Your task to perform on an android device: turn on the 12-hour format for clock Image 0: 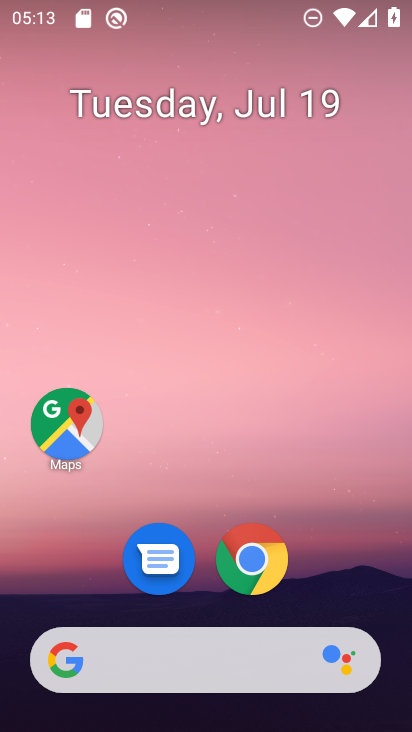
Step 0: drag from (203, 583) to (252, 19)
Your task to perform on an android device: turn on the 12-hour format for clock Image 1: 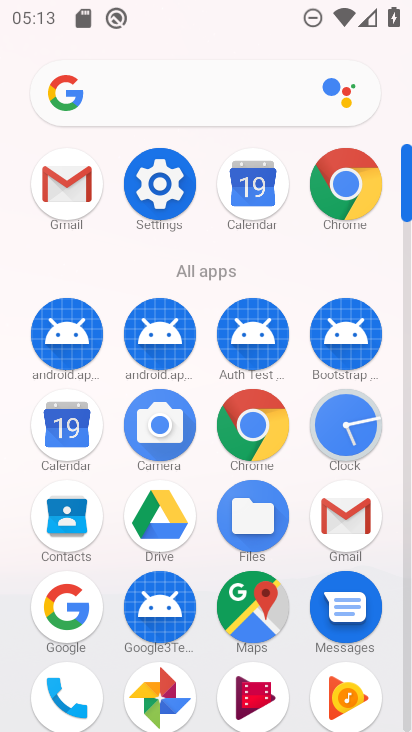
Step 1: click (355, 436)
Your task to perform on an android device: turn on the 12-hour format for clock Image 2: 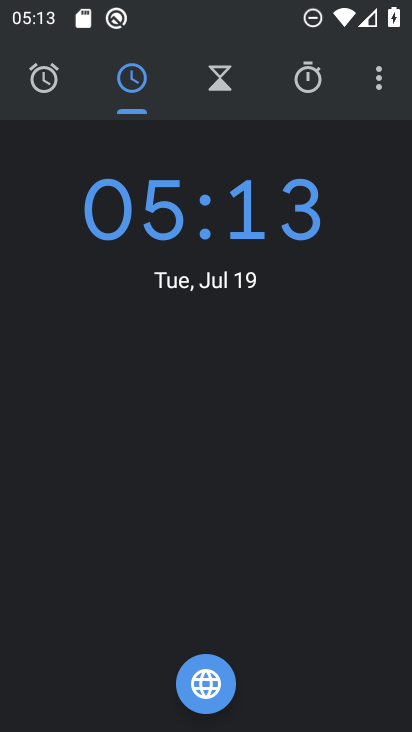
Step 2: click (378, 68)
Your task to perform on an android device: turn on the 12-hour format for clock Image 3: 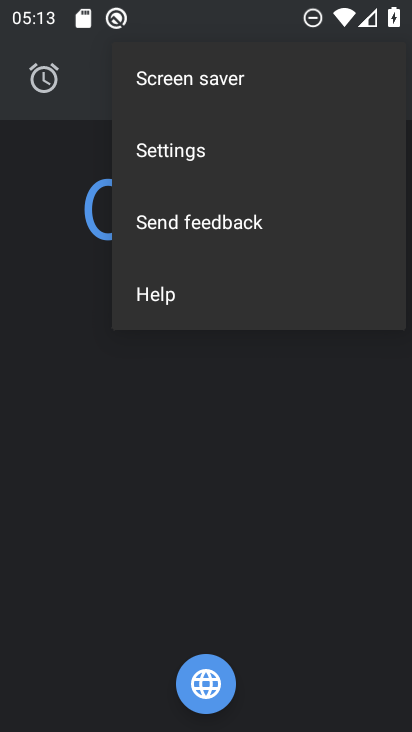
Step 3: click (182, 154)
Your task to perform on an android device: turn on the 12-hour format for clock Image 4: 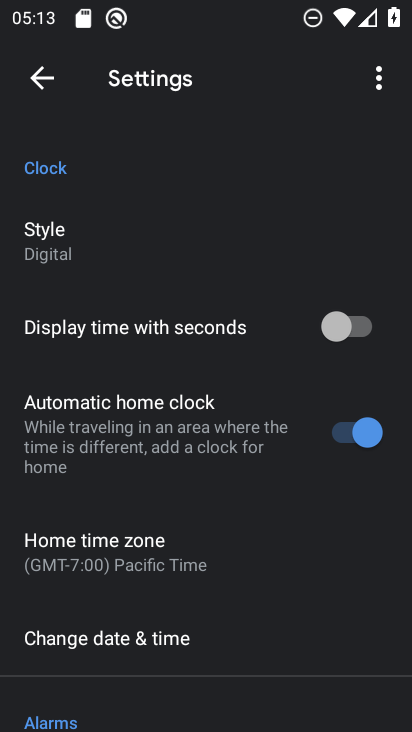
Step 4: click (110, 634)
Your task to perform on an android device: turn on the 12-hour format for clock Image 5: 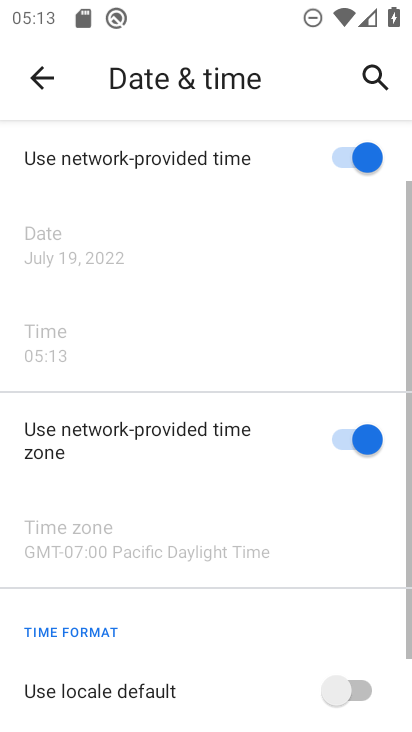
Step 5: drag from (131, 631) to (240, 64)
Your task to perform on an android device: turn on the 12-hour format for clock Image 6: 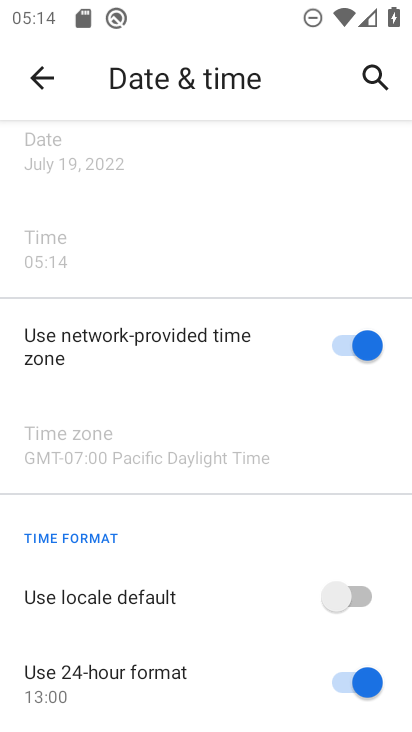
Step 6: click (345, 592)
Your task to perform on an android device: turn on the 12-hour format for clock Image 7: 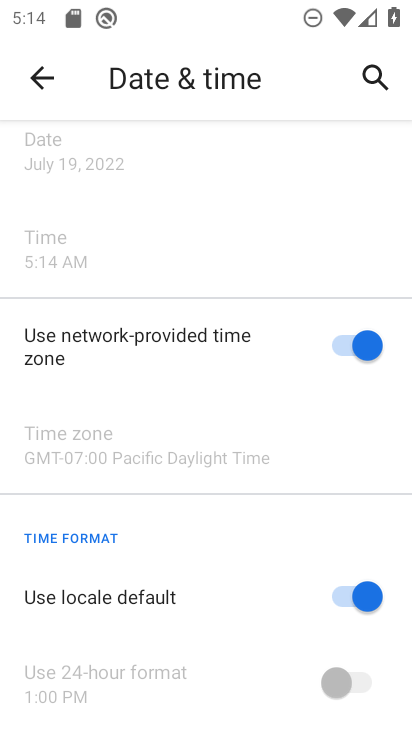
Step 7: task complete